Your task to perform on an android device: Toggle the flashlight Image 0: 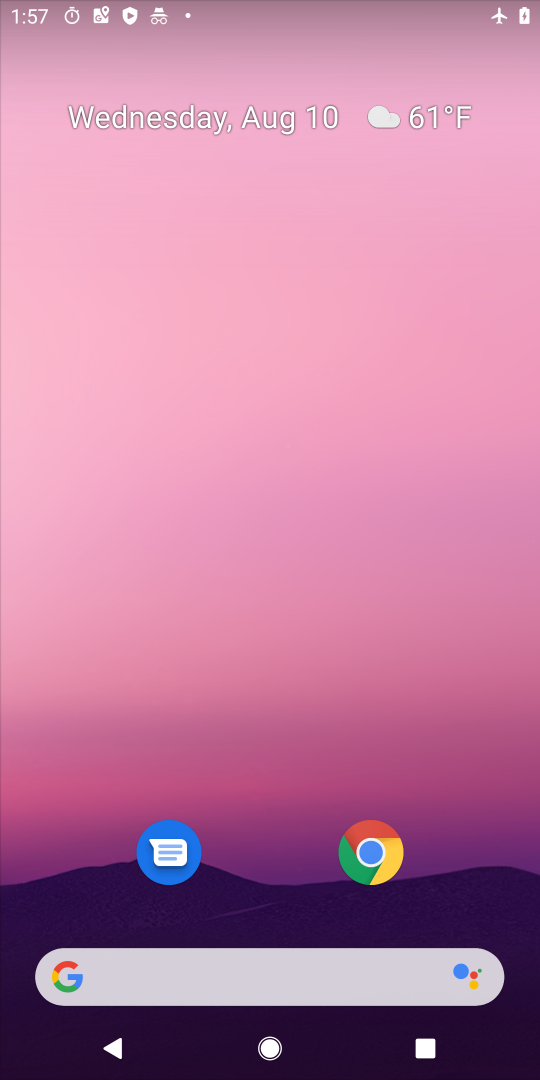
Step 0: drag from (247, 846) to (414, 0)
Your task to perform on an android device: Toggle the flashlight Image 1: 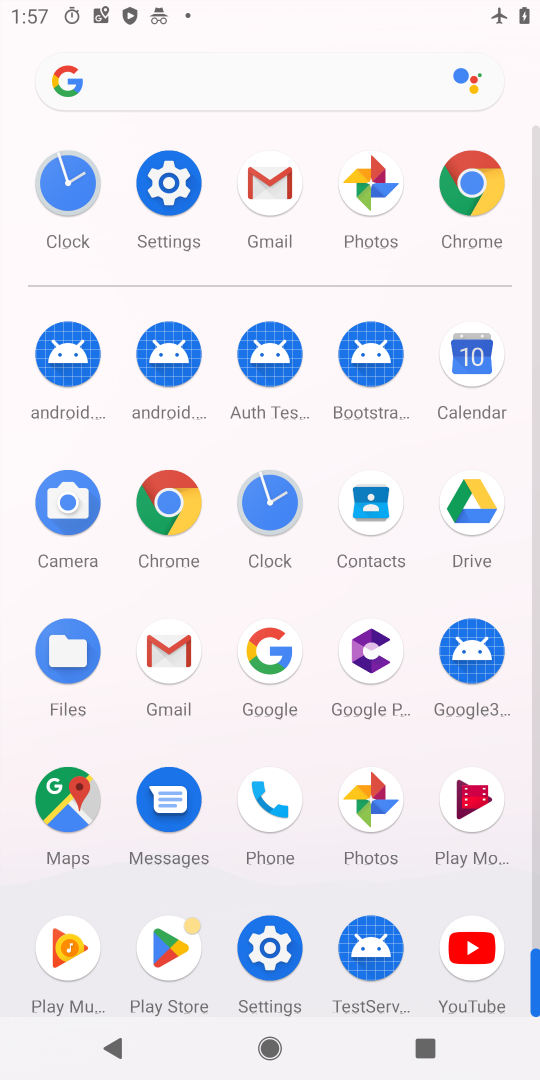
Step 1: click (273, 938)
Your task to perform on an android device: Toggle the flashlight Image 2: 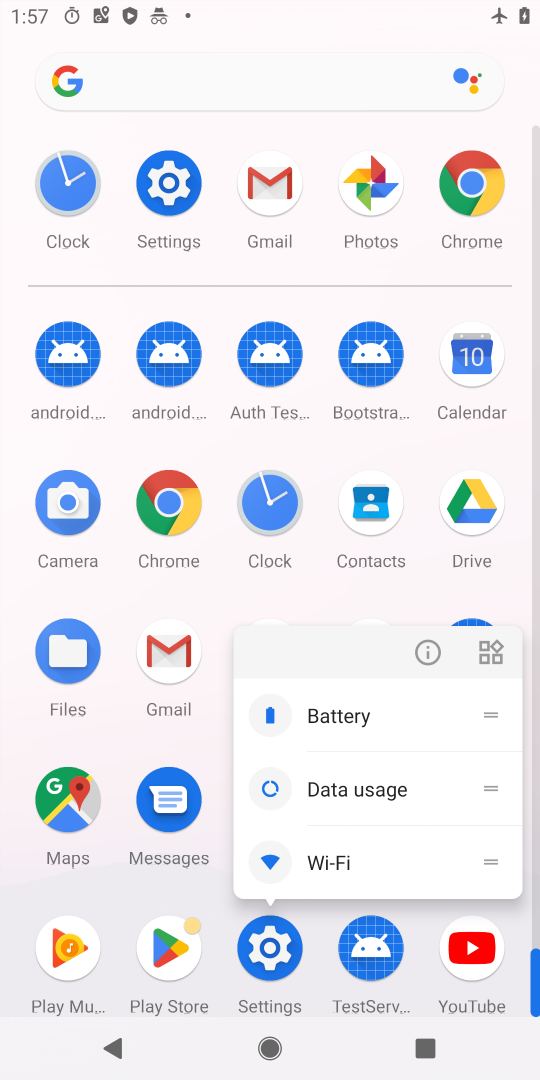
Step 2: click (272, 954)
Your task to perform on an android device: Toggle the flashlight Image 3: 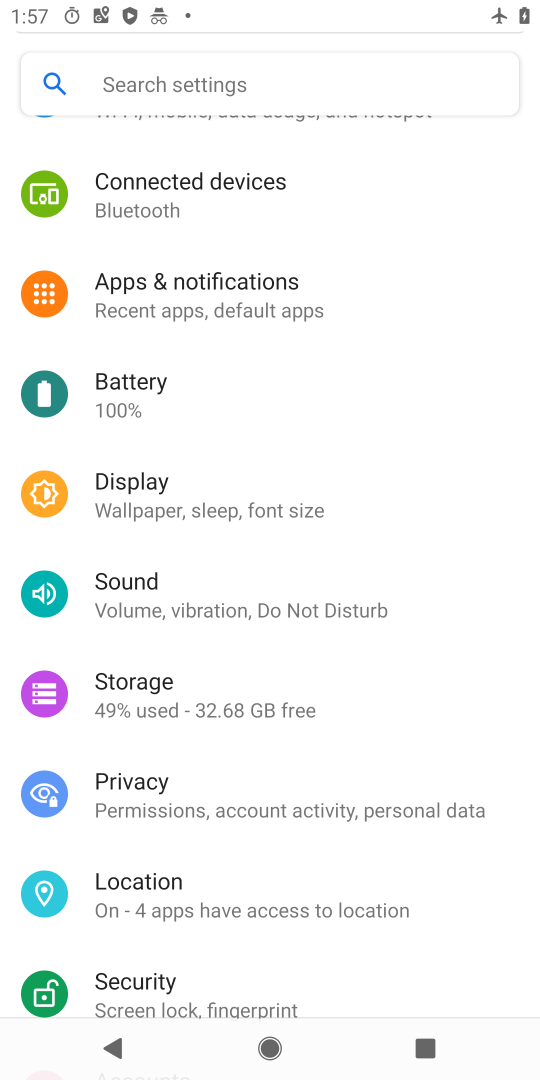
Step 3: drag from (377, 521) to (367, 633)
Your task to perform on an android device: Toggle the flashlight Image 4: 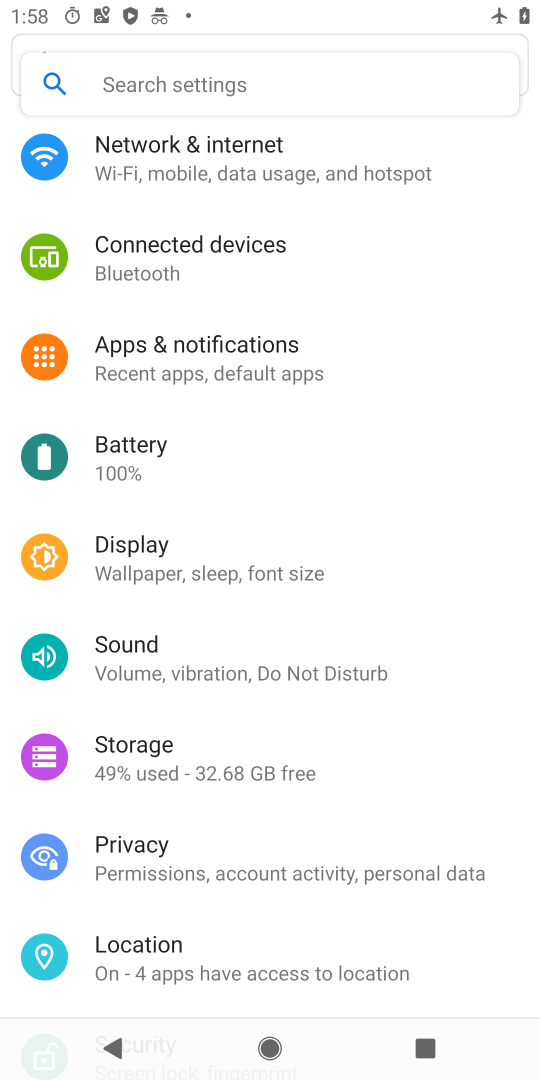
Step 4: click (203, 568)
Your task to perform on an android device: Toggle the flashlight Image 5: 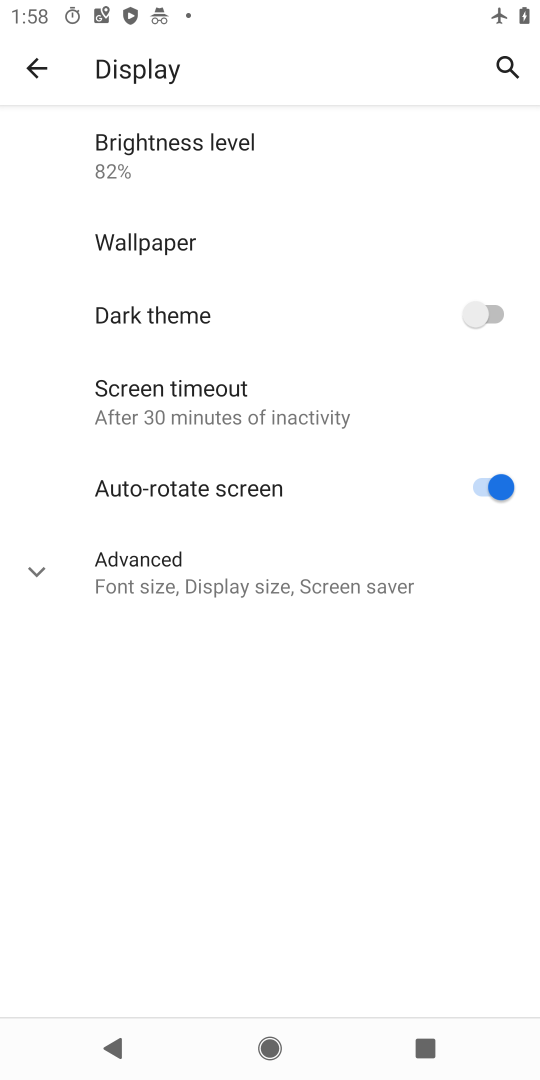
Step 5: task complete